Your task to perform on an android device: Is it going to rain today? Image 0: 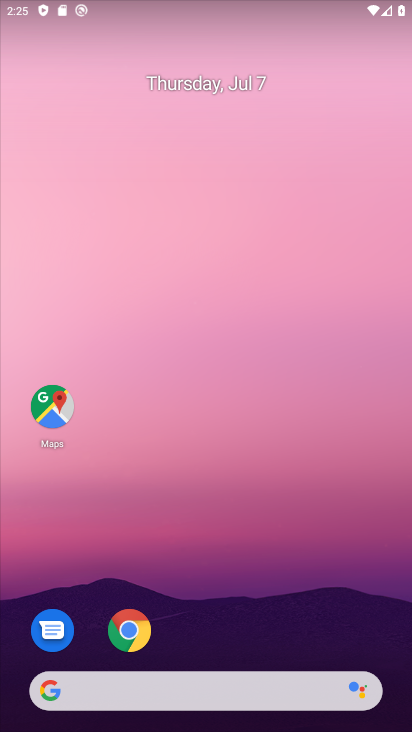
Step 0: drag from (255, 603) to (282, 411)
Your task to perform on an android device: Is it going to rain today? Image 1: 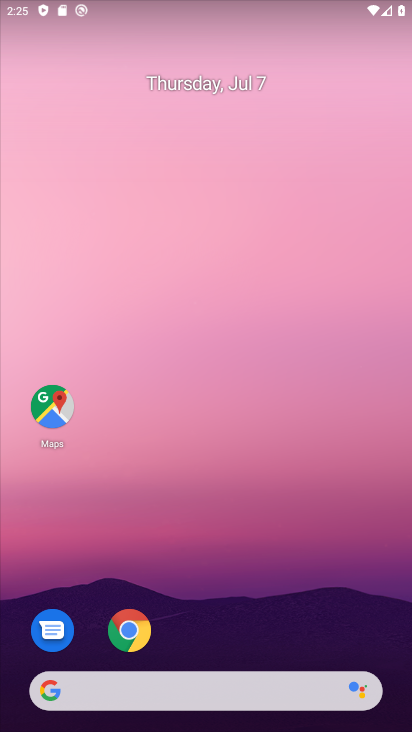
Step 1: drag from (271, 578) to (262, 7)
Your task to perform on an android device: Is it going to rain today? Image 2: 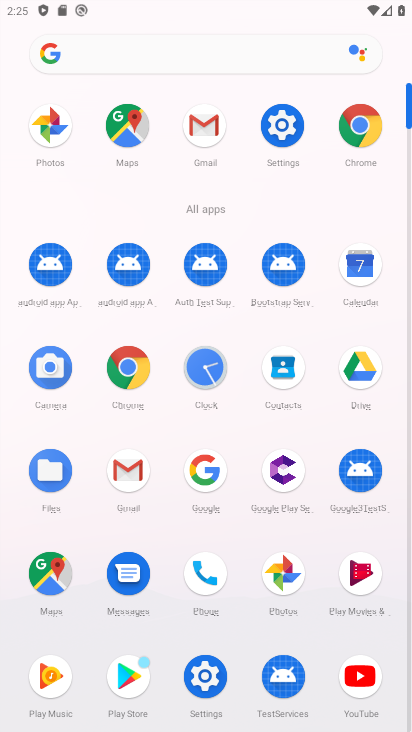
Step 2: click (344, 128)
Your task to perform on an android device: Is it going to rain today? Image 3: 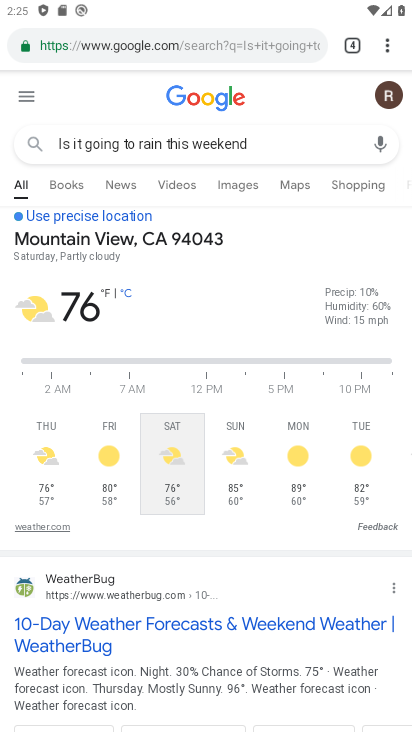
Step 3: click (374, 38)
Your task to perform on an android device: Is it going to rain today? Image 4: 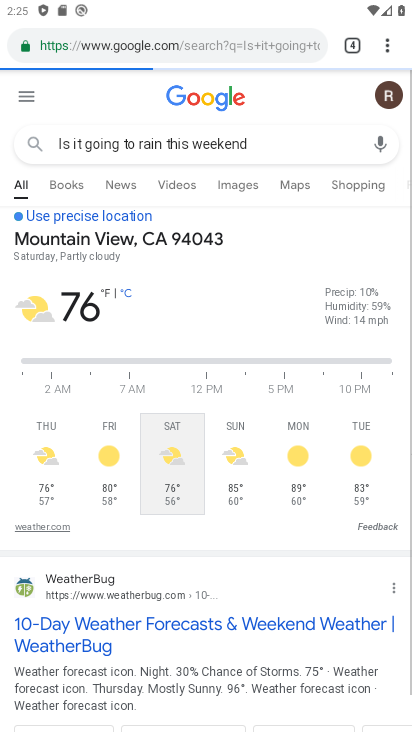
Step 4: click (396, 41)
Your task to perform on an android device: Is it going to rain today? Image 5: 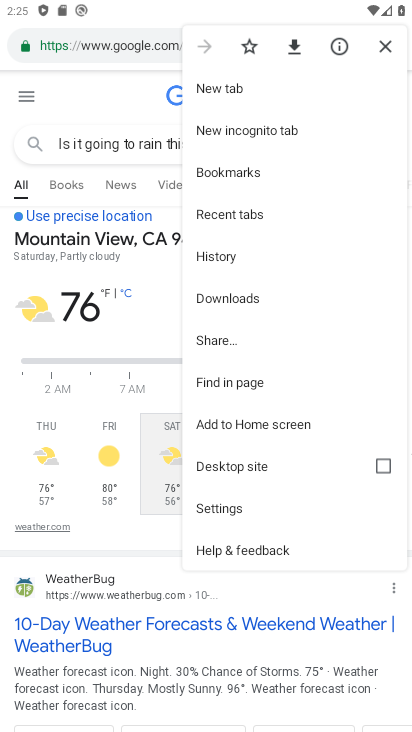
Step 5: click (254, 83)
Your task to perform on an android device: Is it going to rain today? Image 6: 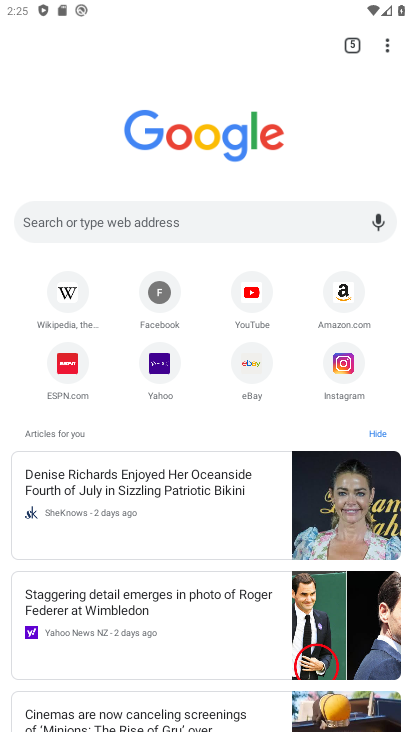
Step 6: click (223, 210)
Your task to perform on an android device: Is it going to rain today? Image 7: 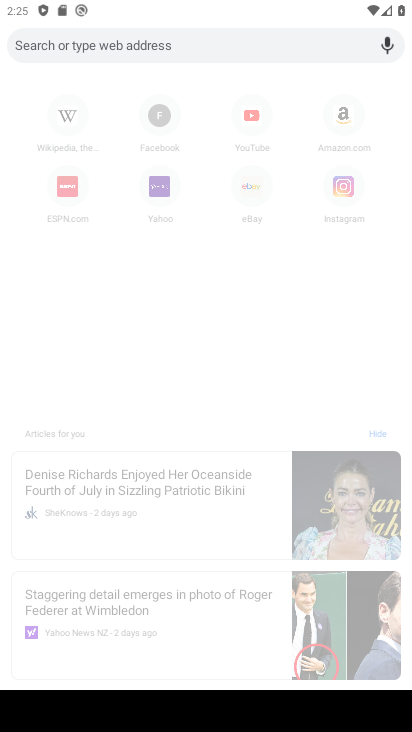
Step 7: type "Is it going to rain today "
Your task to perform on an android device: Is it going to rain today? Image 8: 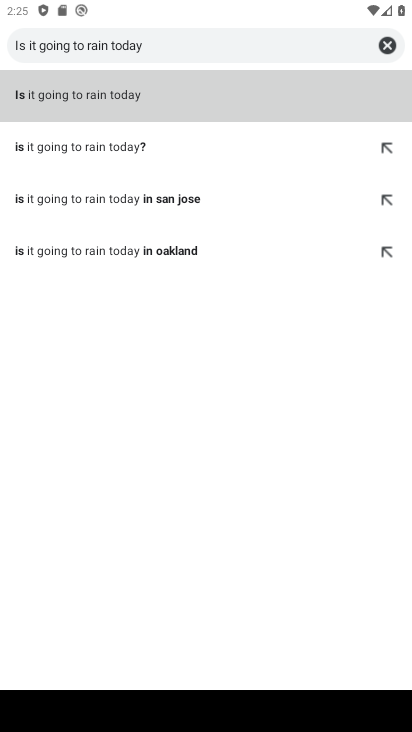
Step 8: click (161, 90)
Your task to perform on an android device: Is it going to rain today? Image 9: 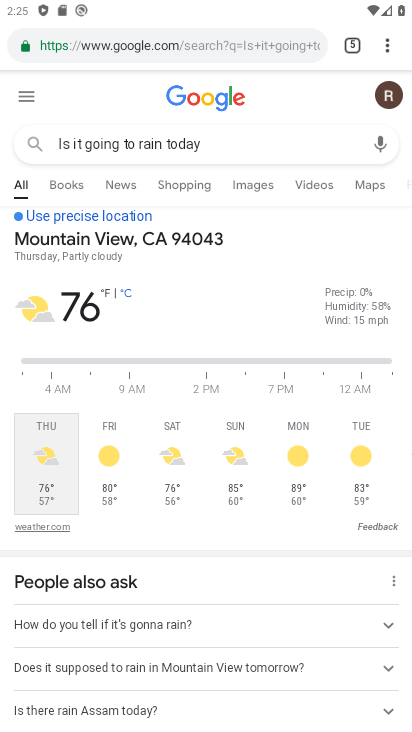
Step 9: task complete